Your task to perform on an android device: Show me popular videos on Youtube Image 0: 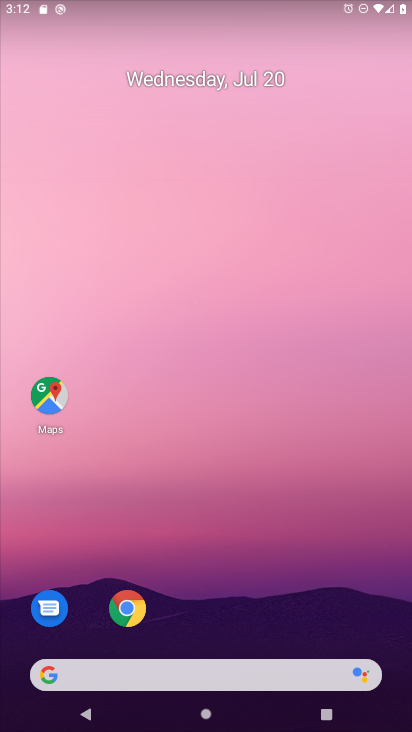
Step 0: drag from (267, 726) to (200, 298)
Your task to perform on an android device: Show me popular videos on Youtube Image 1: 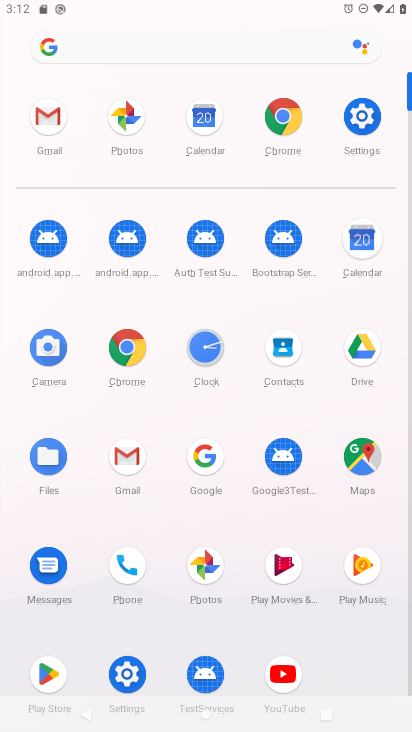
Step 1: click (284, 674)
Your task to perform on an android device: Show me popular videos on Youtube Image 2: 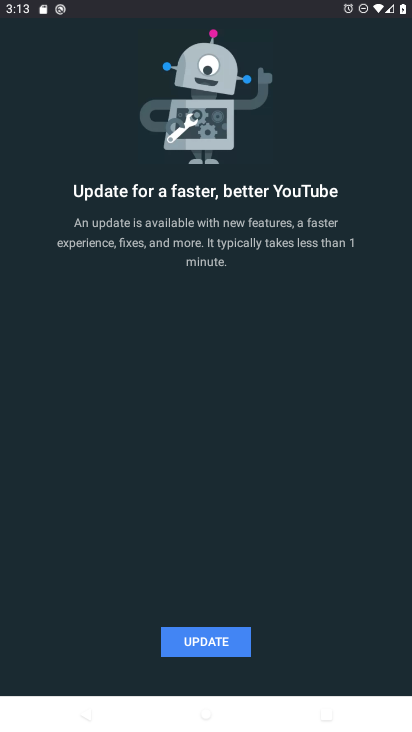
Step 2: click (207, 634)
Your task to perform on an android device: Show me popular videos on Youtube Image 3: 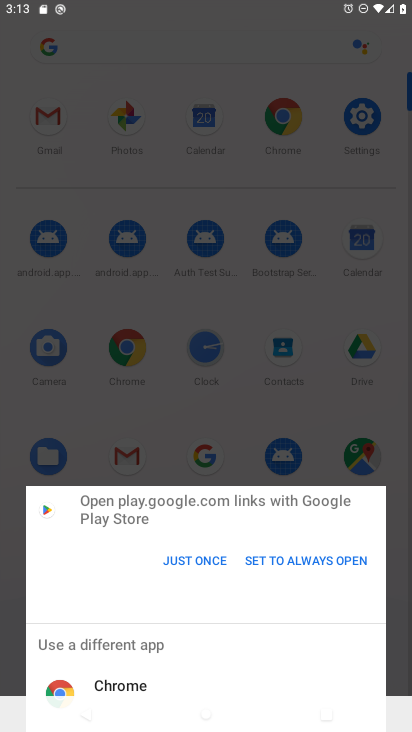
Step 3: click (174, 528)
Your task to perform on an android device: Show me popular videos on Youtube Image 4: 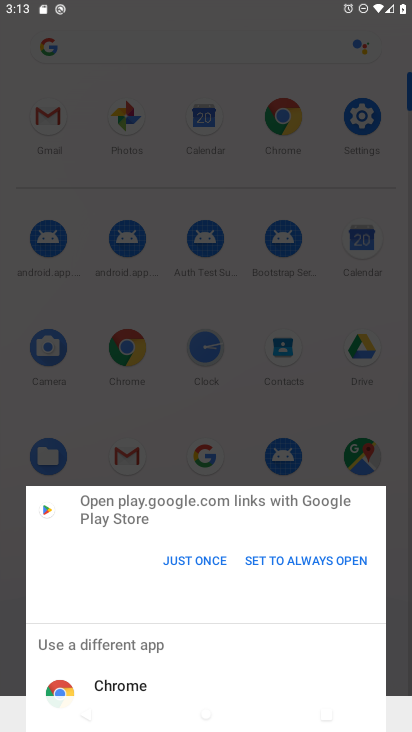
Step 4: click (206, 564)
Your task to perform on an android device: Show me popular videos on Youtube Image 5: 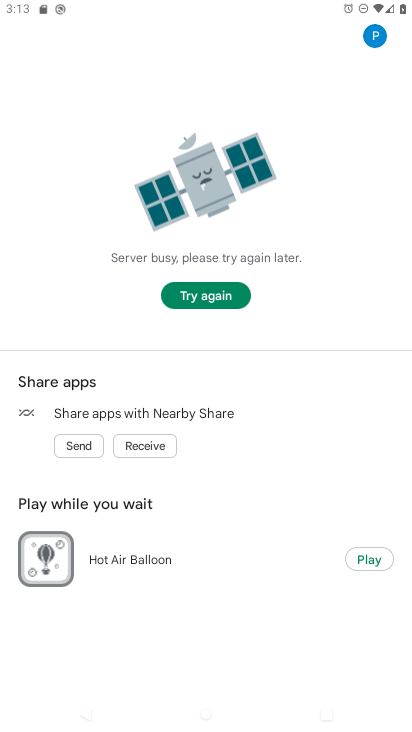
Step 5: task complete